Your task to perform on an android device: turn on notifications settings in the gmail app Image 0: 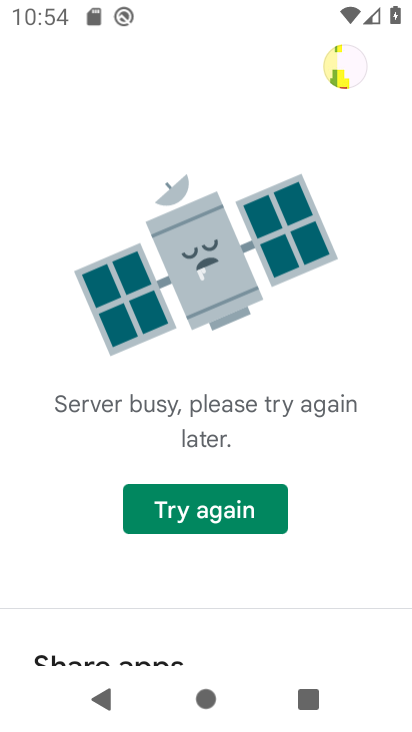
Step 0: press home button
Your task to perform on an android device: turn on notifications settings in the gmail app Image 1: 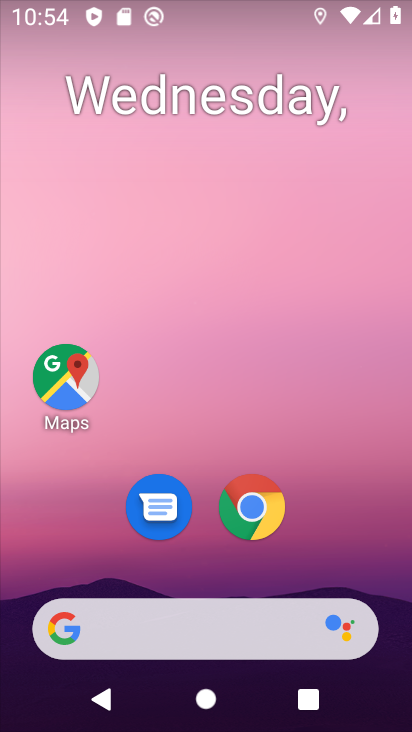
Step 1: drag from (351, 523) to (361, 163)
Your task to perform on an android device: turn on notifications settings in the gmail app Image 2: 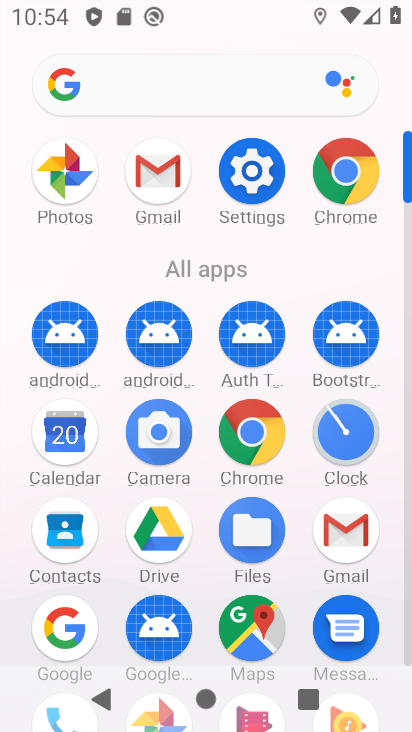
Step 2: click (339, 536)
Your task to perform on an android device: turn on notifications settings in the gmail app Image 3: 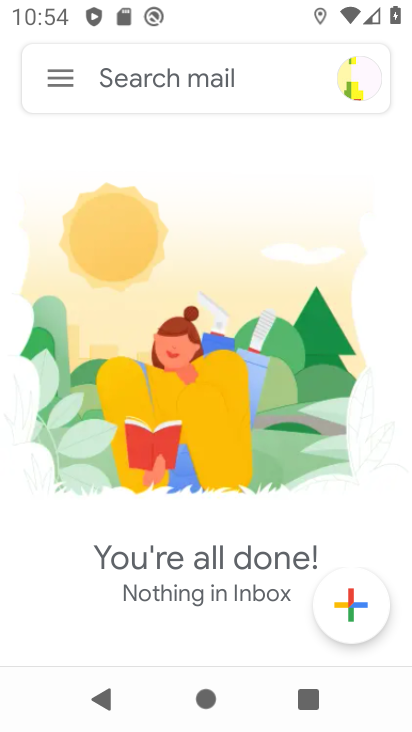
Step 3: click (62, 75)
Your task to perform on an android device: turn on notifications settings in the gmail app Image 4: 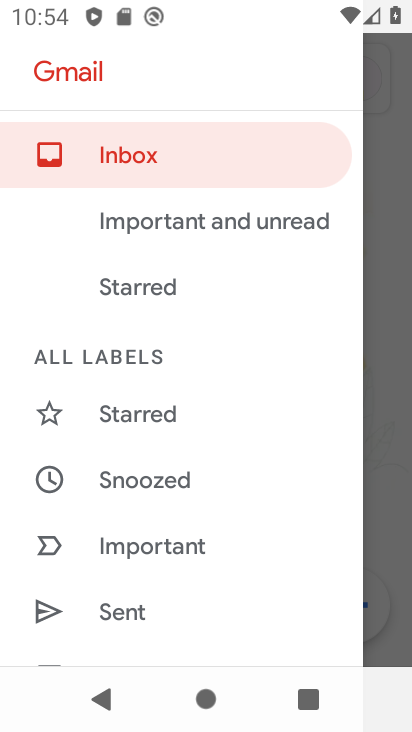
Step 4: drag from (281, 567) to (290, 365)
Your task to perform on an android device: turn on notifications settings in the gmail app Image 5: 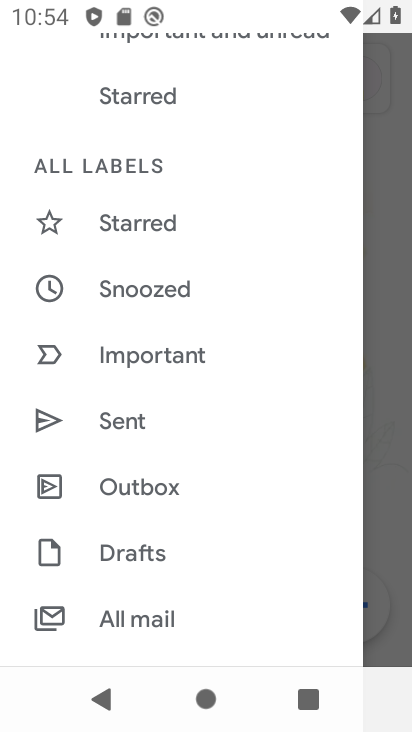
Step 5: drag from (288, 546) to (305, 354)
Your task to perform on an android device: turn on notifications settings in the gmail app Image 6: 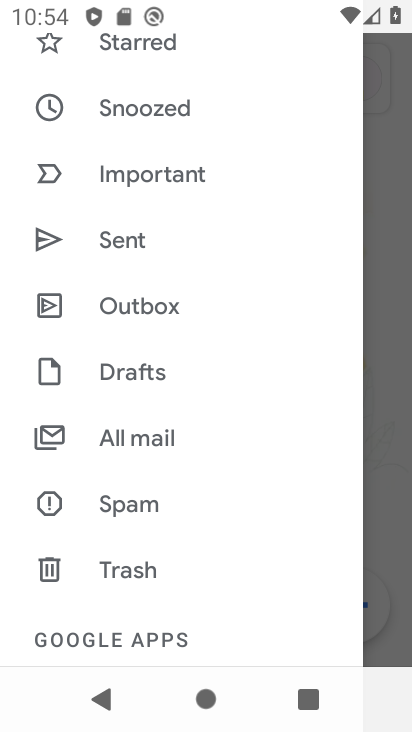
Step 6: drag from (287, 582) to (283, 359)
Your task to perform on an android device: turn on notifications settings in the gmail app Image 7: 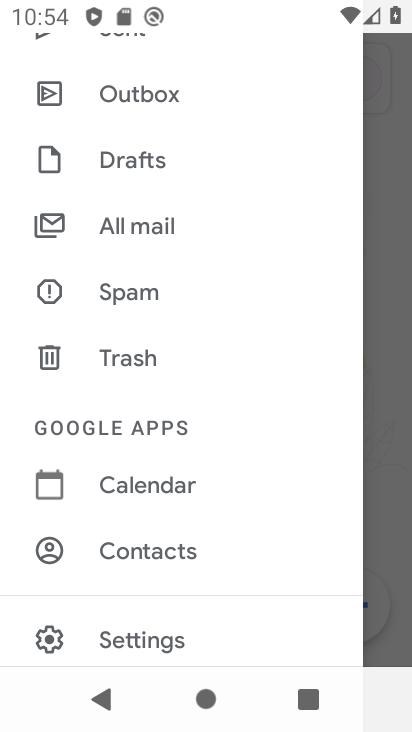
Step 7: drag from (277, 558) to (286, 402)
Your task to perform on an android device: turn on notifications settings in the gmail app Image 8: 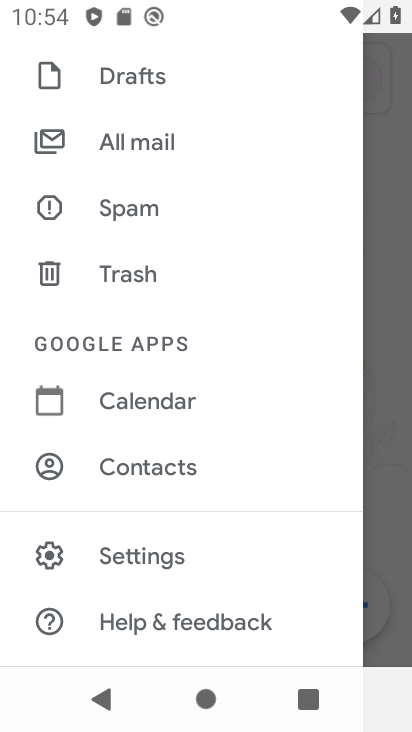
Step 8: click (170, 562)
Your task to perform on an android device: turn on notifications settings in the gmail app Image 9: 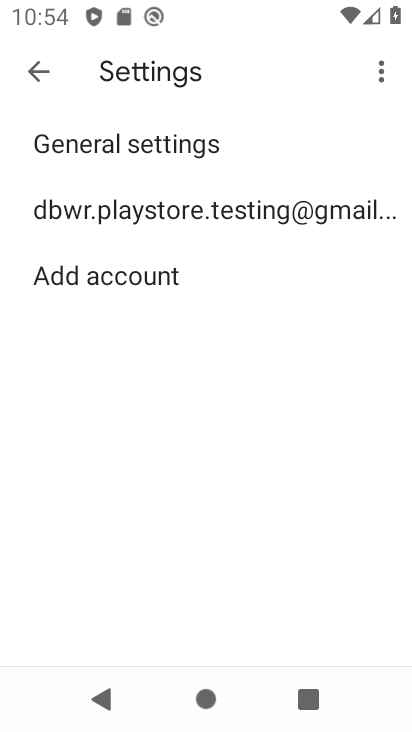
Step 9: click (284, 204)
Your task to perform on an android device: turn on notifications settings in the gmail app Image 10: 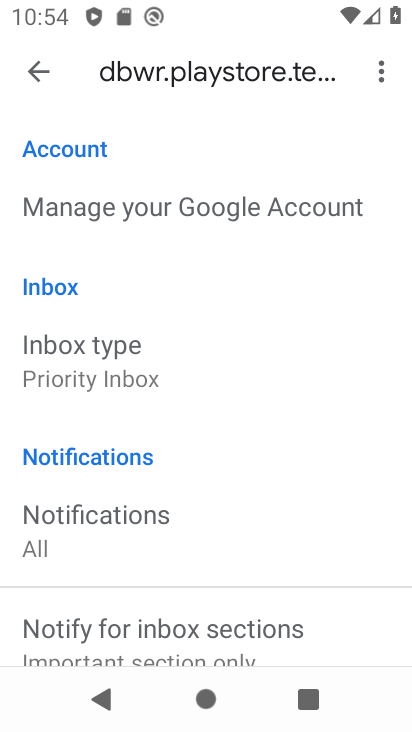
Step 10: drag from (299, 484) to (309, 307)
Your task to perform on an android device: turn on notifications settings in the gmail app Image 11: 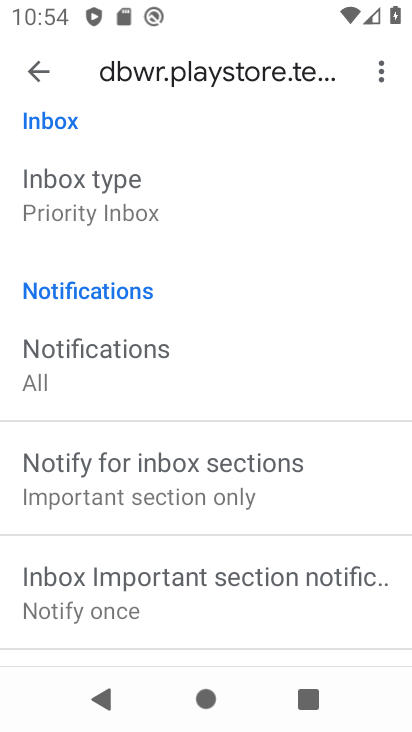
Step 11: drag from (340, 515) to (342, 307)
Your task to perform on an android device: turn on notifications settings in the gmail app Image 12: 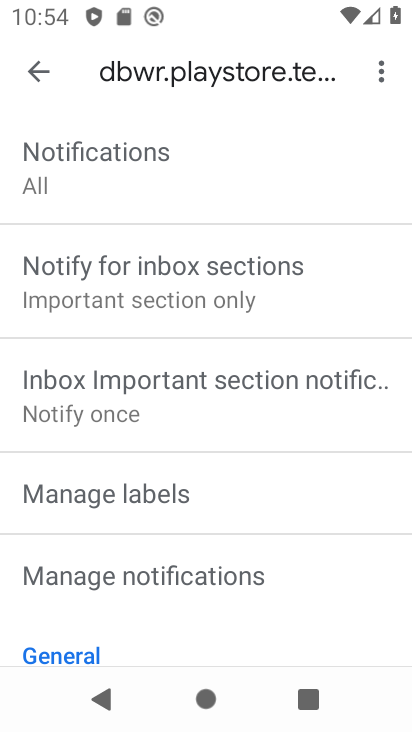
Step 12: drag from (349, 582) to (349, 383)
Your task to perform on an android device: turn on notifications settings in the gmail app Image 13: 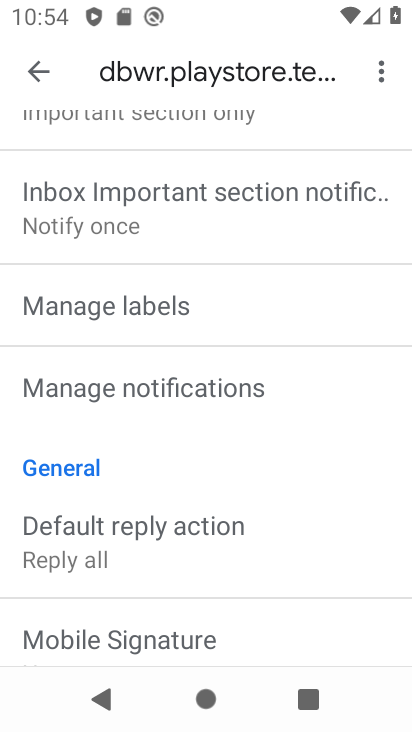
Step 13: drag from (356, 544) to (349, 400)
Your task to perform on an android device: turn on notifications settings in the gmail app Image 14: 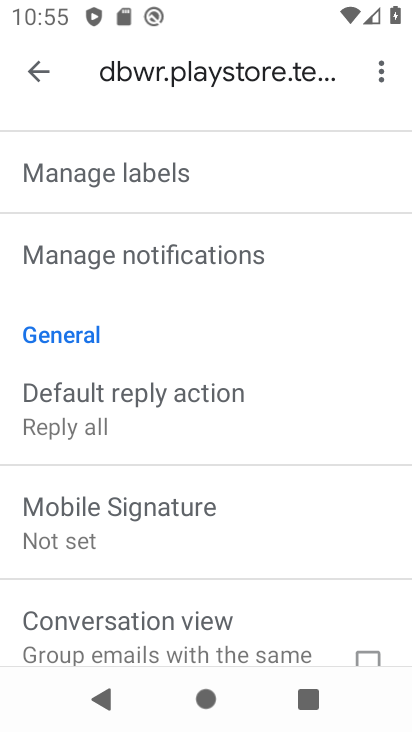
Step 14: drag from (343, 550) to (345, 338)
Your task to perform on an android device: turn on notifications settings in the gmail app Image 15: 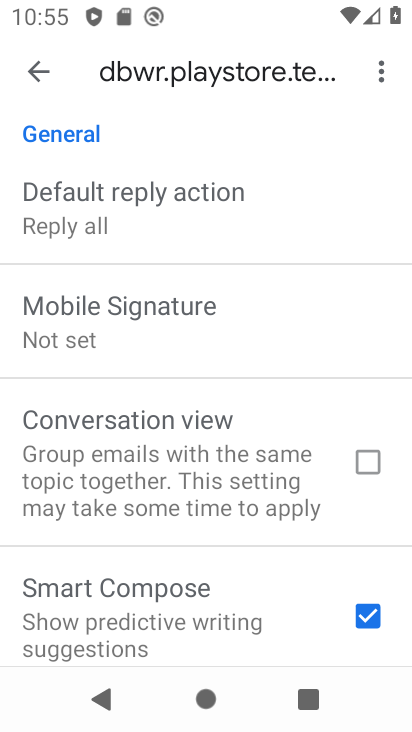
Step 15: drag from (301, 576) to (308, 340)
Your task to perform on an android device: turn on notifications settings in the gmail app Image 16: 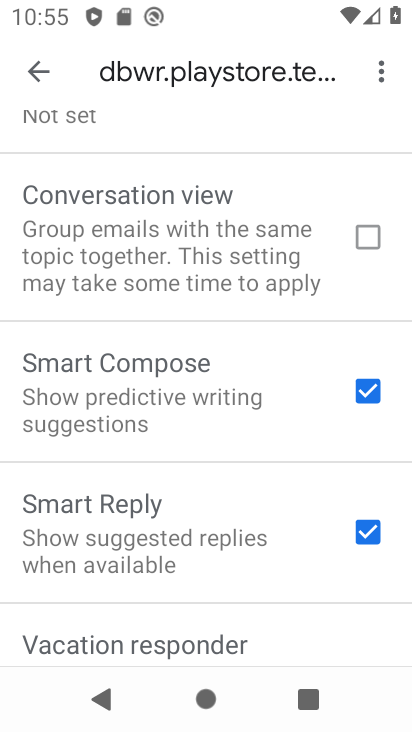
Step 16: drag from (329, 173) to (305, 387)
Your task to perform on an android device: turn on notifications settings in the gmail app Image 17: 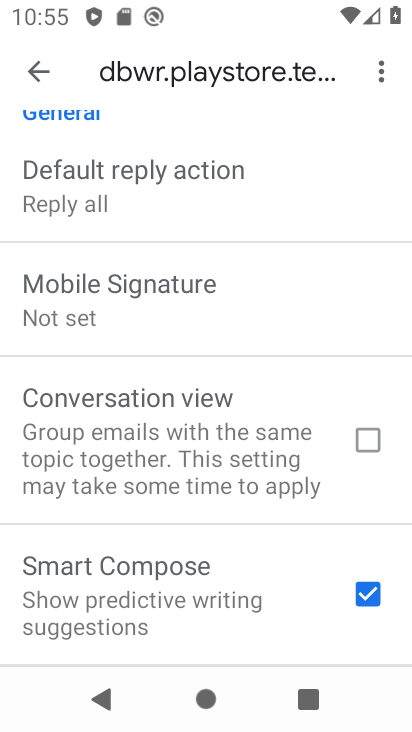
Step 17: drag from (289, 210) to (299, 385)
Your task to perform on an android device: turn on notifications settings in the gmail app Image 18: 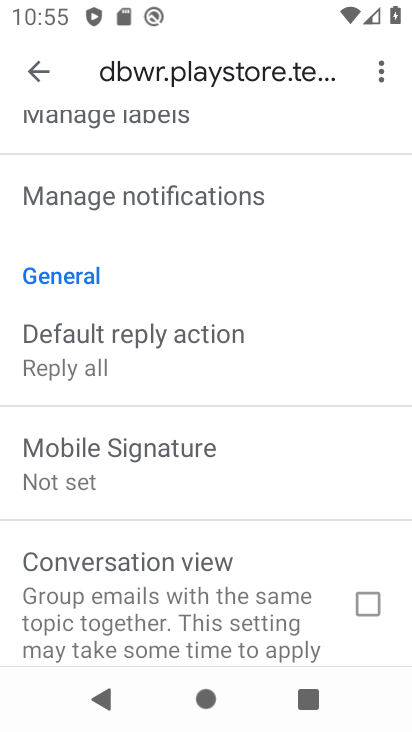
Step 18: click (228, 189)
Your task to perform on an android device: turn on notifications settings in the gmail app Image 19: 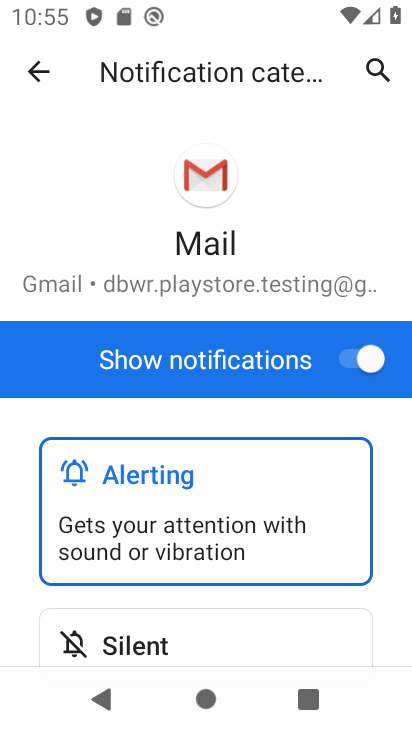
Step 19: task complete